Your task to perform on an android device: Go to Maps Image 0: 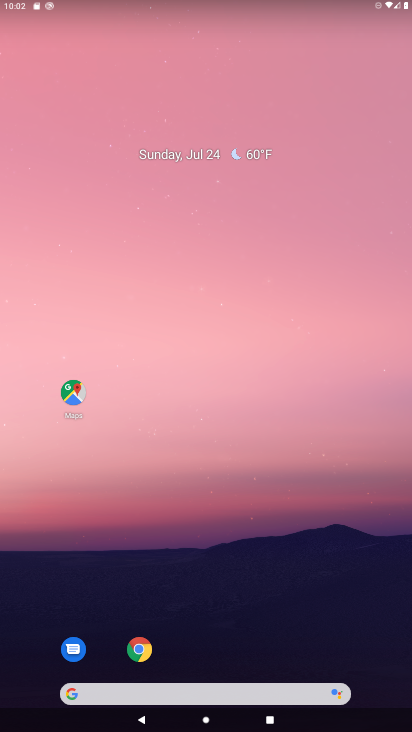
Step 0: drag from (313, 639) to (279, 223)
Your task to perform on an android device: Go to Maps Image 1: 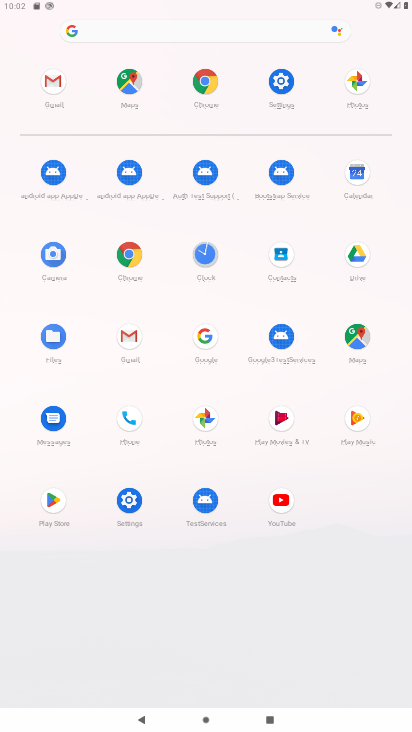
Step 1: click (200, 76)
Your task to perform on an android device: Go to Maps Image 2: 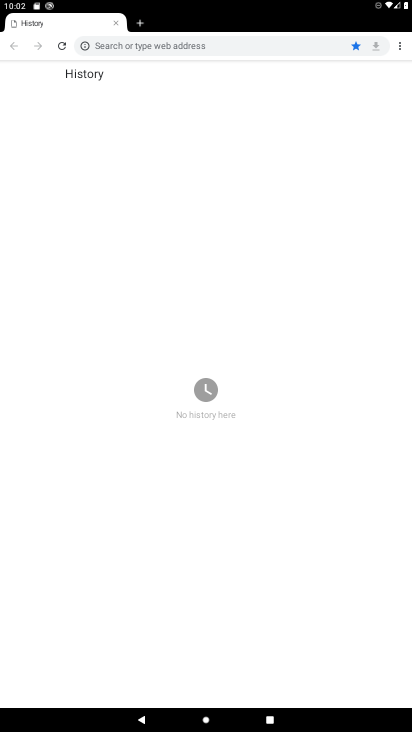
Step 2: click (13, 44)
Your task to perform on an android device: Go to Maps Image 3: 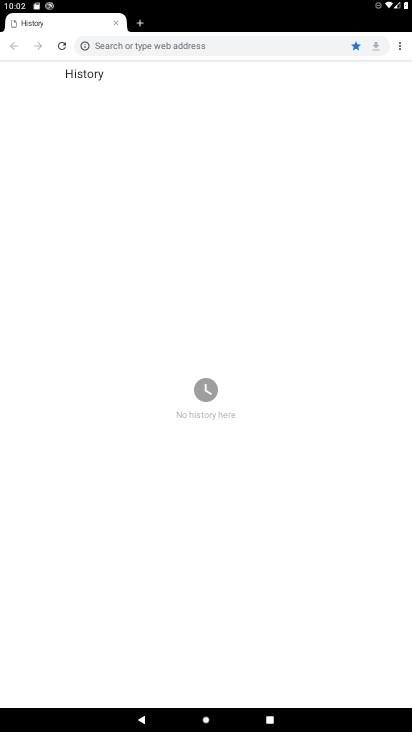
Step 3: press home button
Your task to perform on an android device: Go to Maps Image 4: 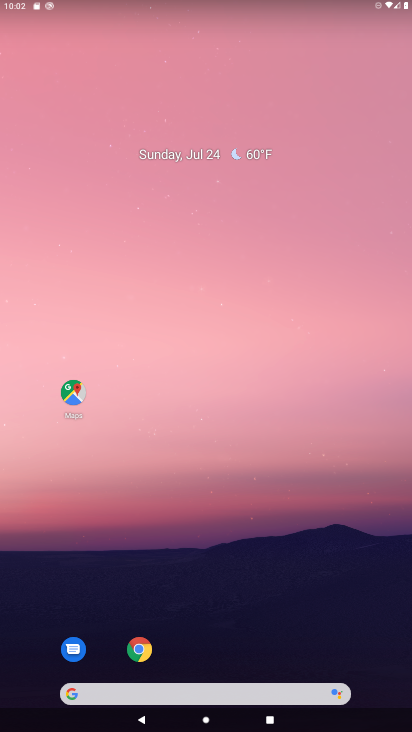
Step 4: drag from (290, 522) to (279, 44)
Your task to perform on an android device: Go to Maps Image 5: 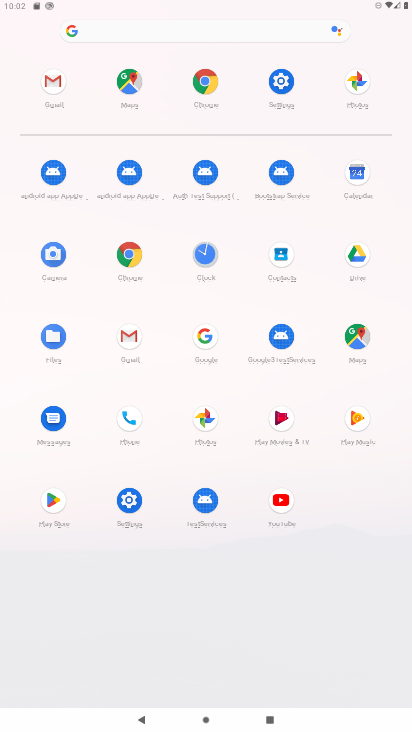
Step 5: click (133, 78)
Your task to perform on an android device: Go to Maps Image 6: 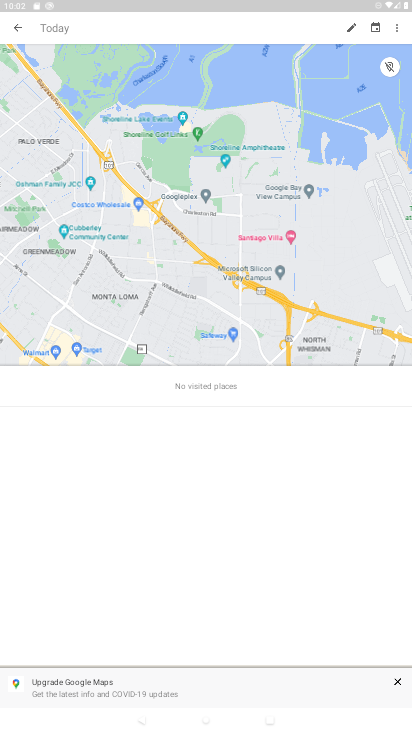
Step 6: task complete